Your task to perform on an android device: Show me recent news Image 0: 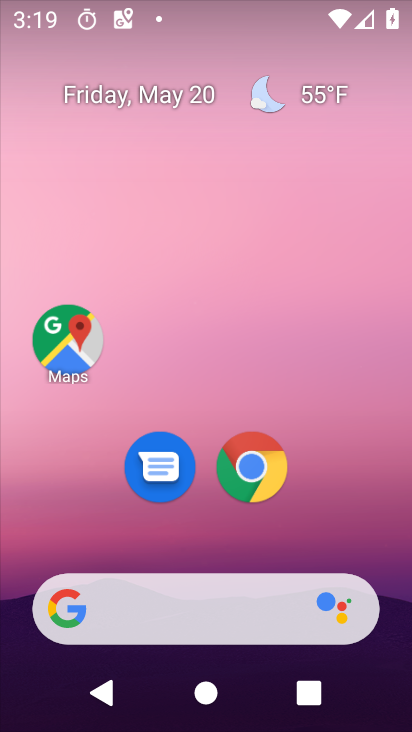
Step 0: drag from (205, 549) to (279, 42)
Your task to perform on an android device: Show me recent news Image 1: 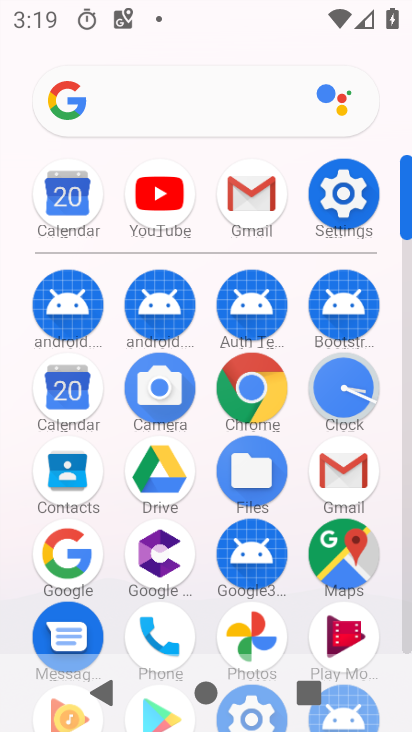
Step 1: click (150, 107)
Your task to perform on an android device: Show me recent news Image 2: 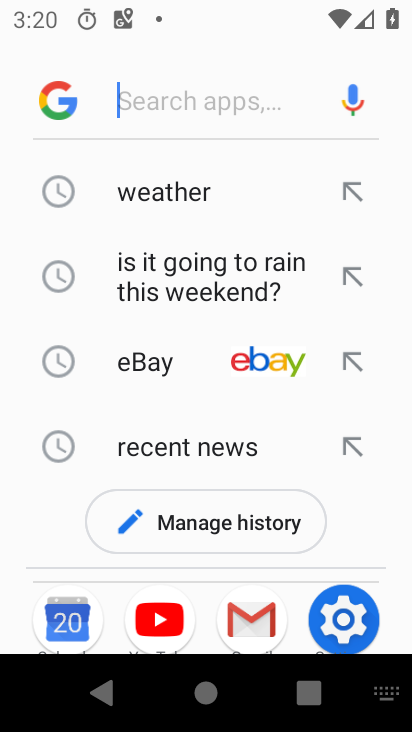
Step 2: type "recent news"
Your task to perform on an android device: Show me recent news Image 3: 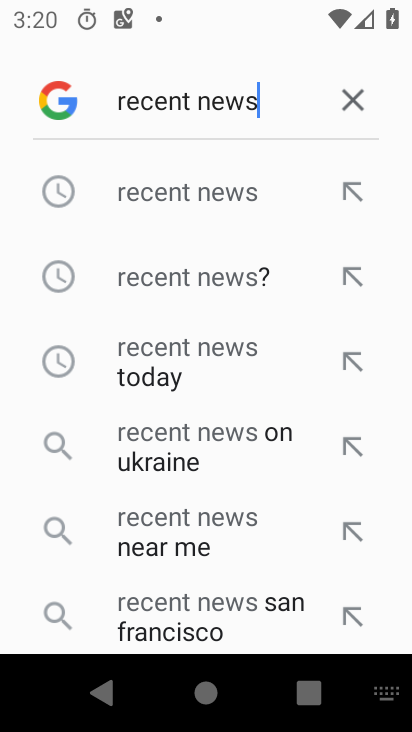
Step 3: click (176, 202)
Your task to perform on an android device: Show me recent news Image 4: 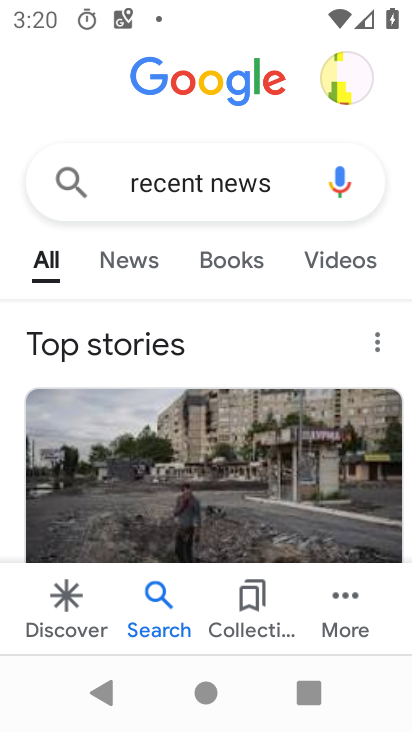
Step 4: click (126, 258)
Your task to perform on an android device: Show me recent news Image 5: 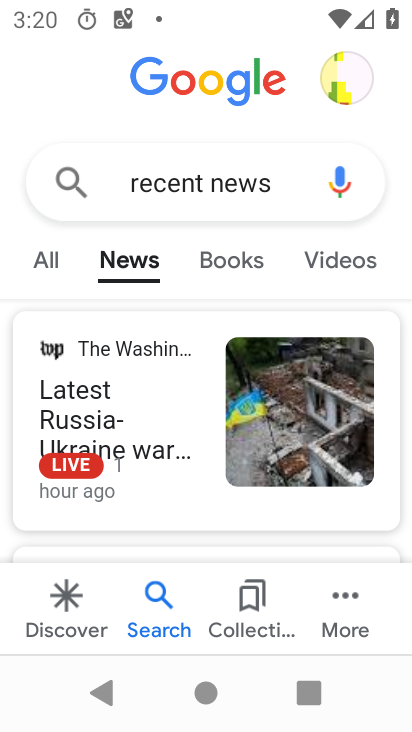
Step 5: task complete